Your task to perform on an android device: Search for "usb-b" on newegg.com, select the first entry, add it to the cart, then select checkout. Image 0: 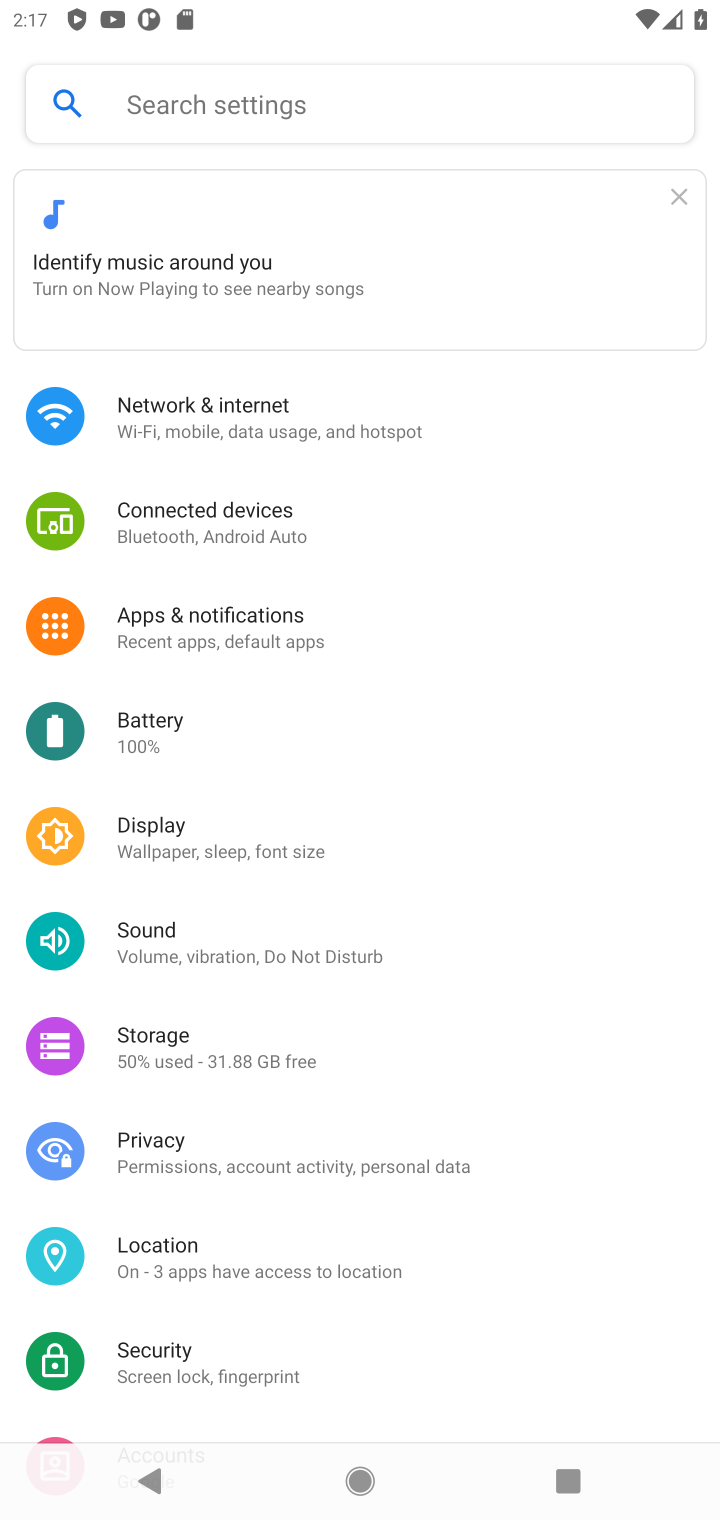
Step 0: press home button
Your task to perform on an android device: Search for "usb-b" on newegg.com, select the first entry, add it to the cart, then select checkout. Image 1: 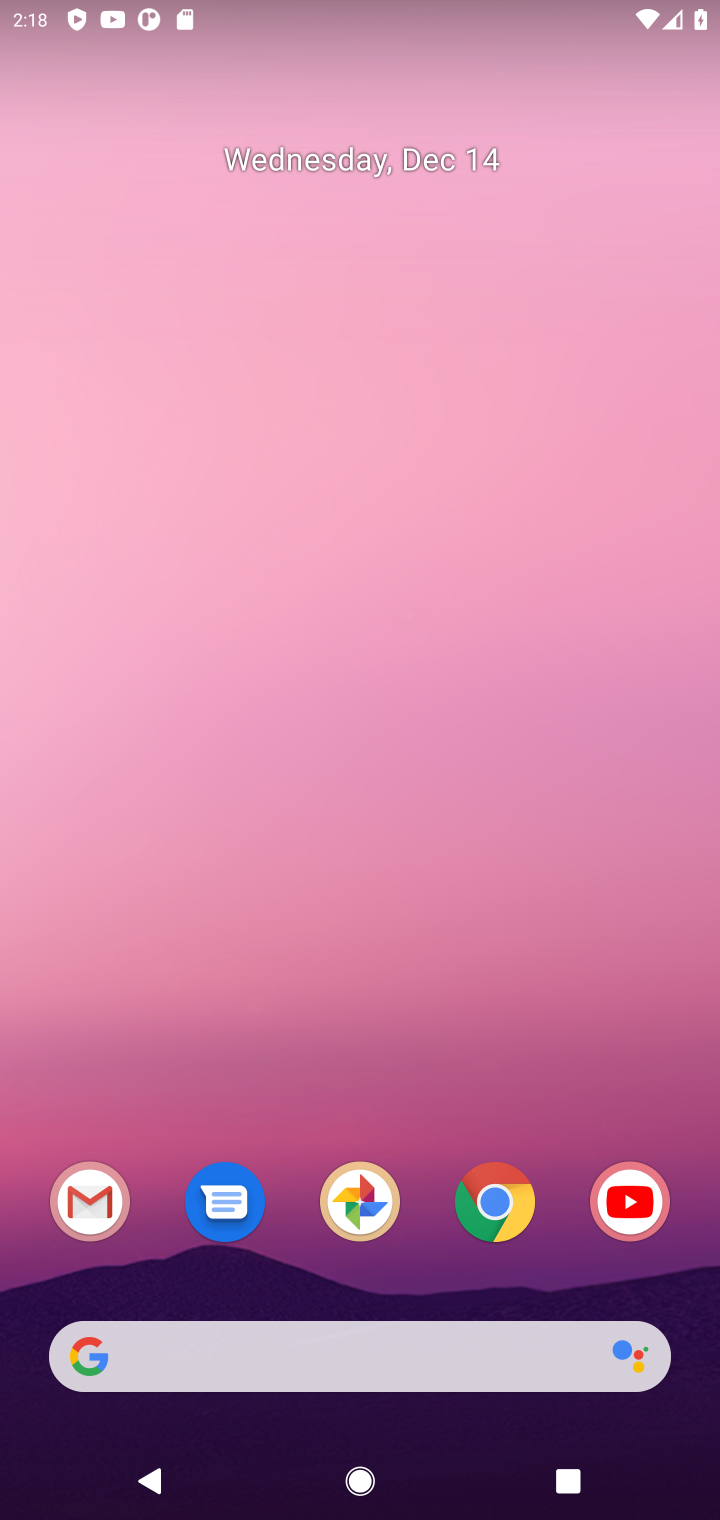
Step 1: click (491, 1203)
Your task to perform on an android device: Search for "usb-b" on newegg.com, select the first entry, add it to the cart, then select checkout. Image 2: 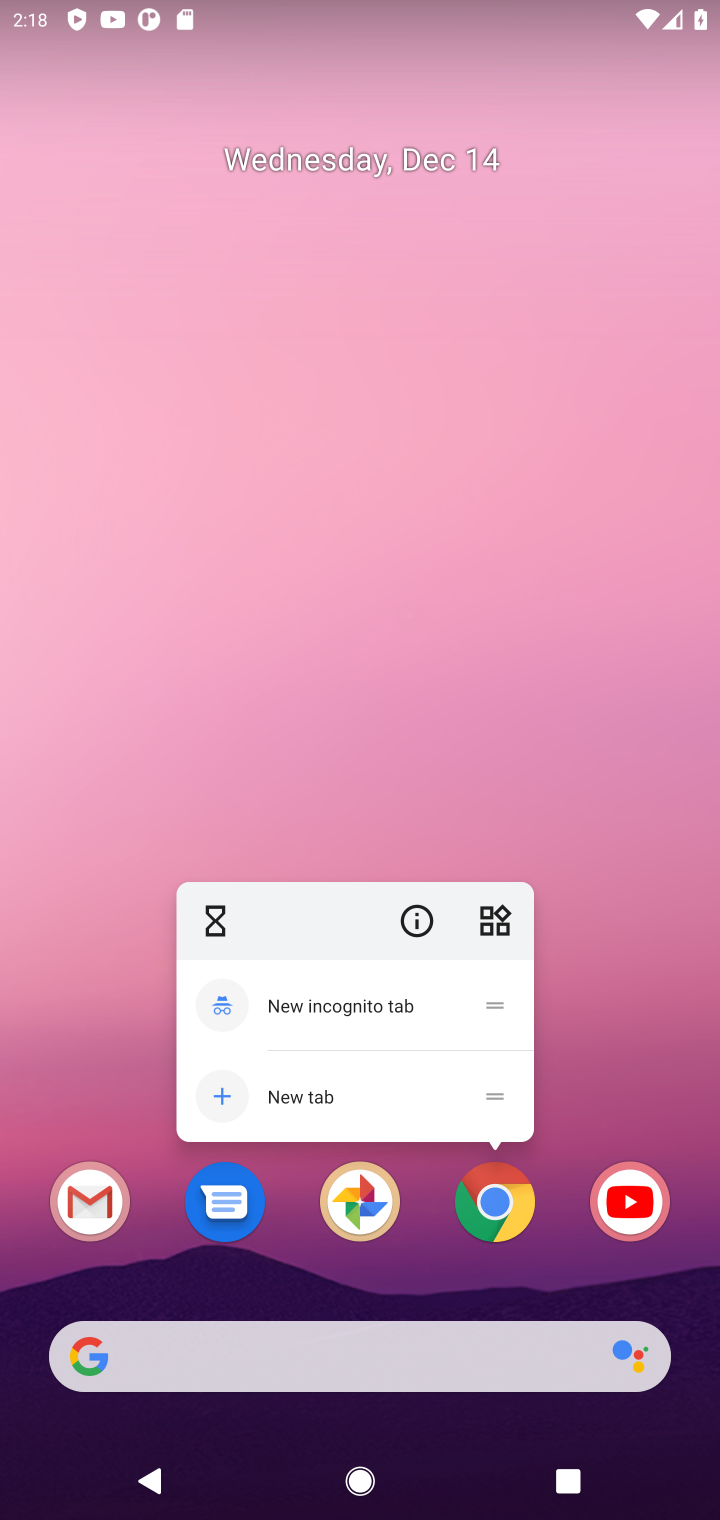
Step 2: click (505, 1188)
Your task to perform on an android device: Search for "usb-b" on newegg.com, select the first entry, add it to the cart, then select checkout. Image 3: 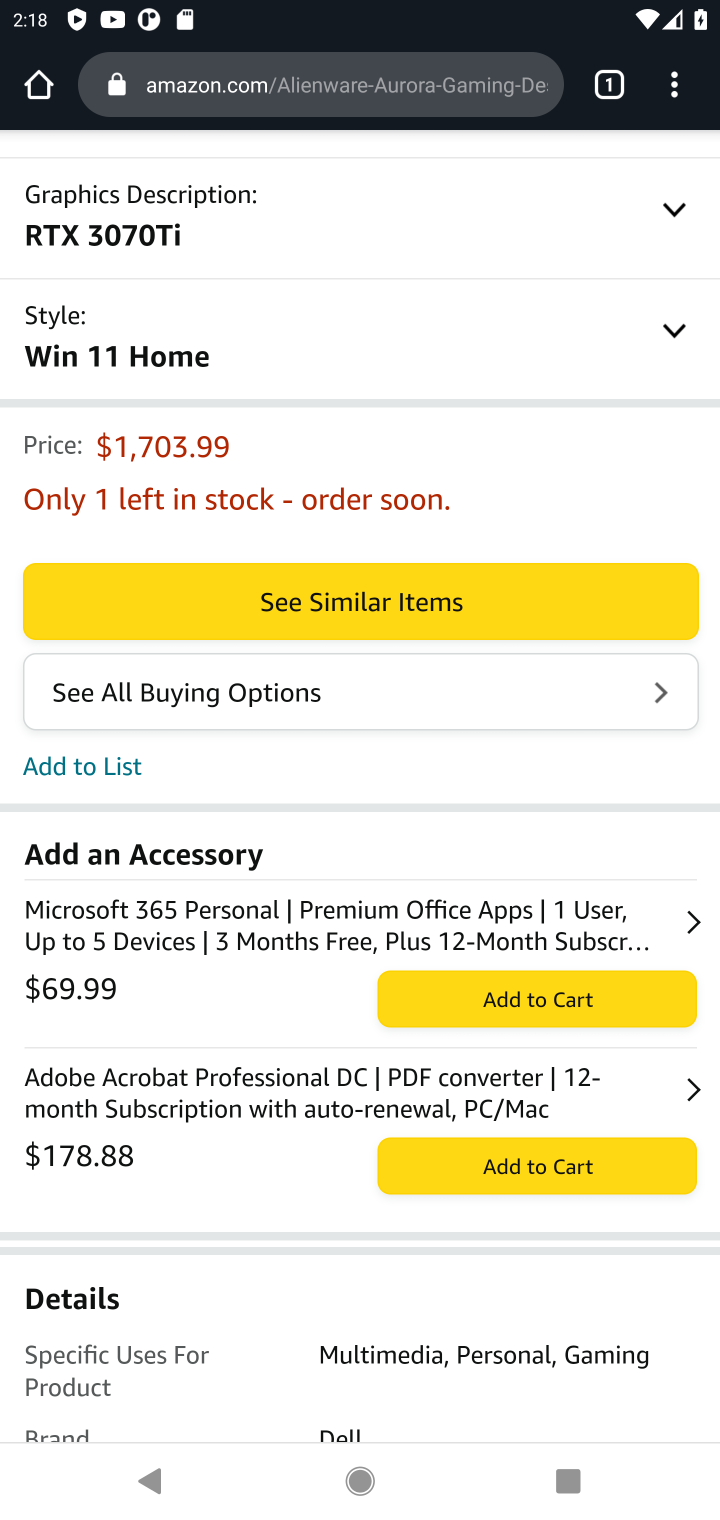
Step 3: click (291, 79)
Your task to perform on an android device: Search for "usb-b" on newegg.com, select the first entry, add it to the cart, then select checkout. Image 4: 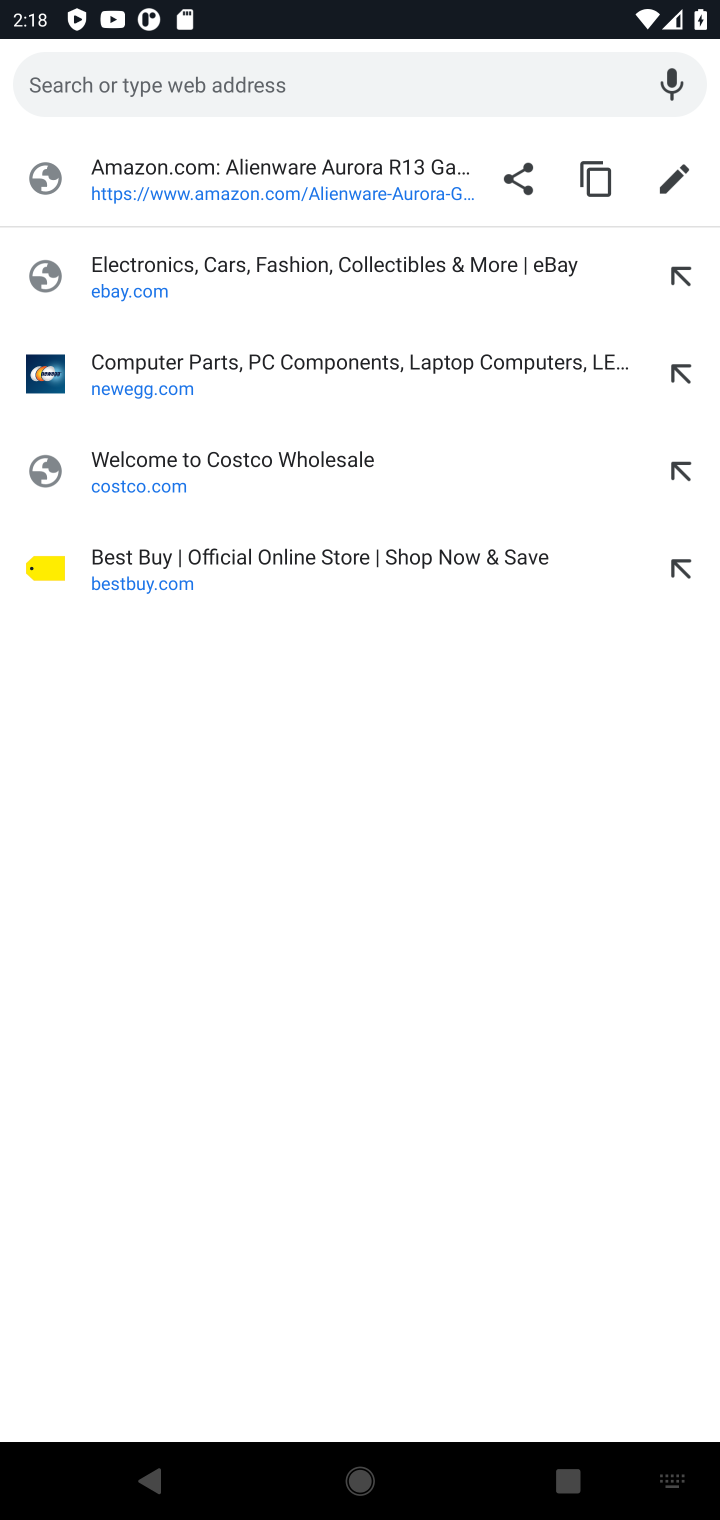
Step 4: click (142, 390)
Your task to perform on an android device: Search for "usb-b" on newegg.com, select the first entry, add it to the cart, then select checkout. Image 5: 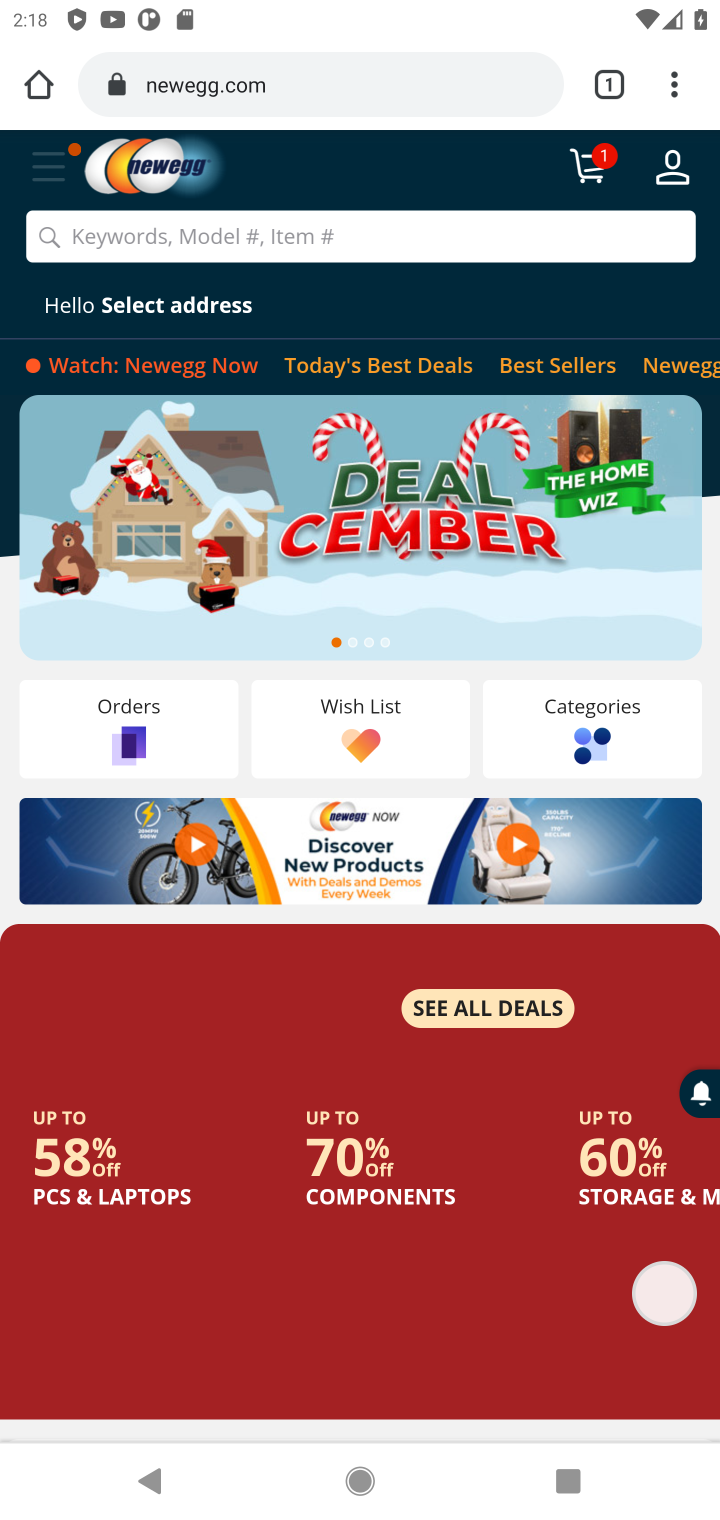
Step 5: click (398, 234)
Your task to perform on an android device: Search for "usb-b" on newegg.com, select the first entry, add it to the cart, then select checkout. Image 6: 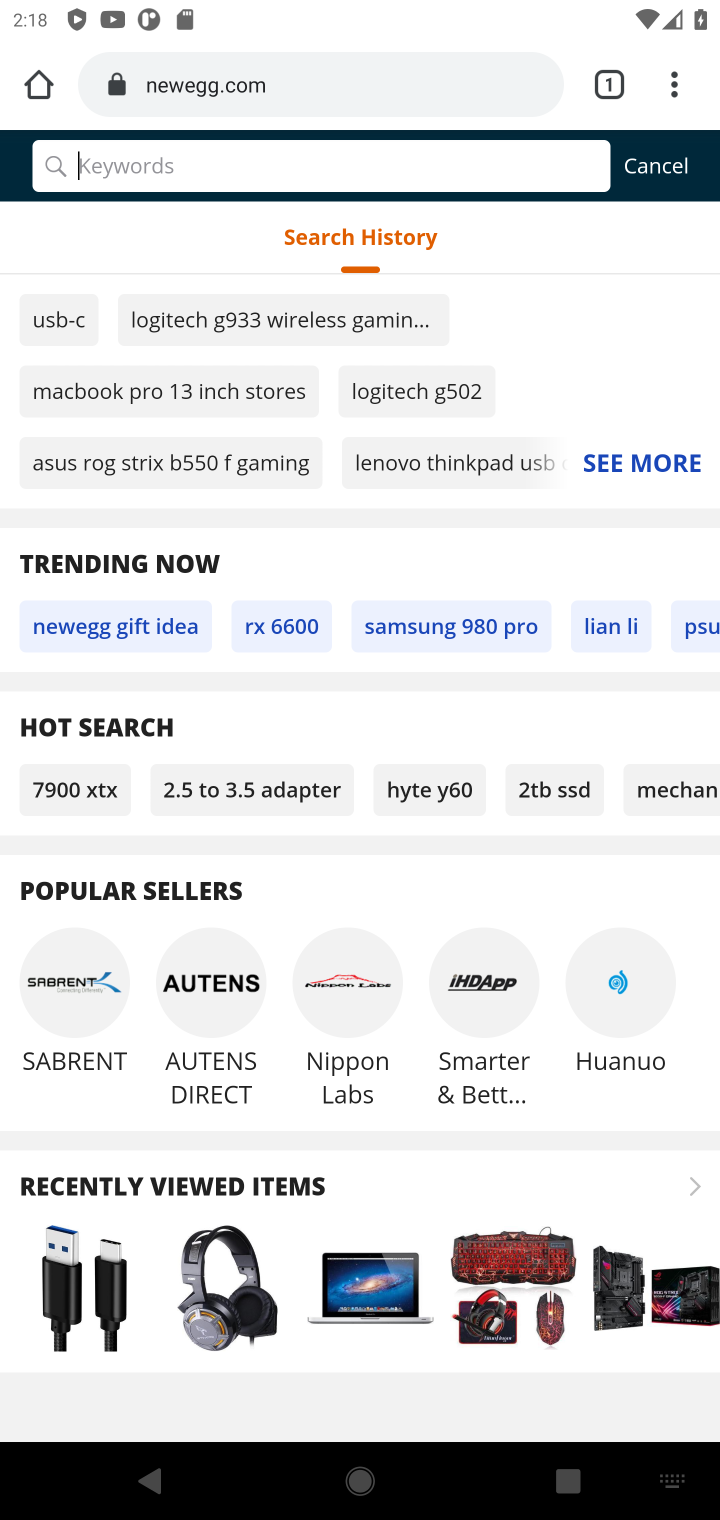
Step 6: type "usb-b"
Your task to perform on an android device: Search for "usb-b" on newegg.com, select the first entry, add it to the cart, then select checkout. Image 7: 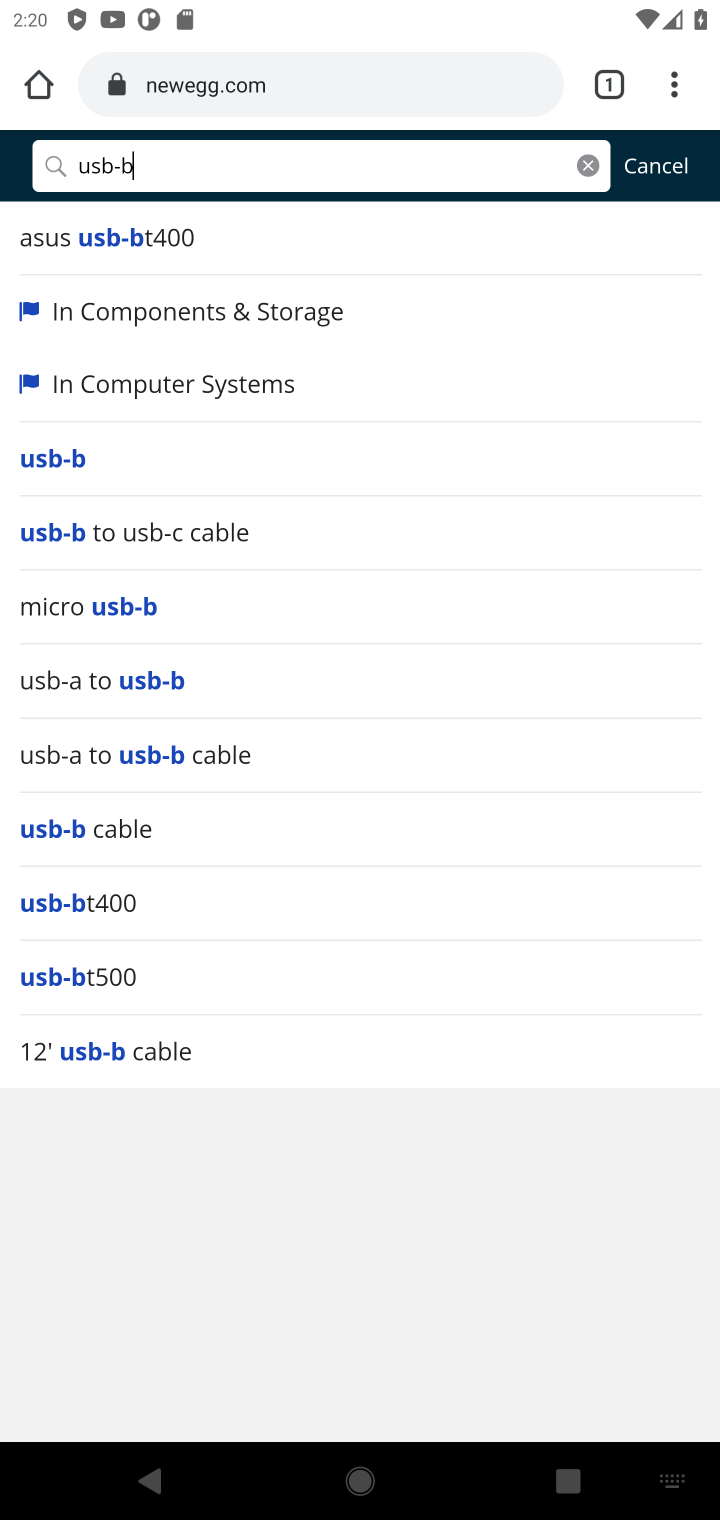
Step 7: click (102, 246)
Your task to perform on an android device: Search for "usb-b" on newegg.com, select the first entry, add it to the cart, then select checkout. Image 8: 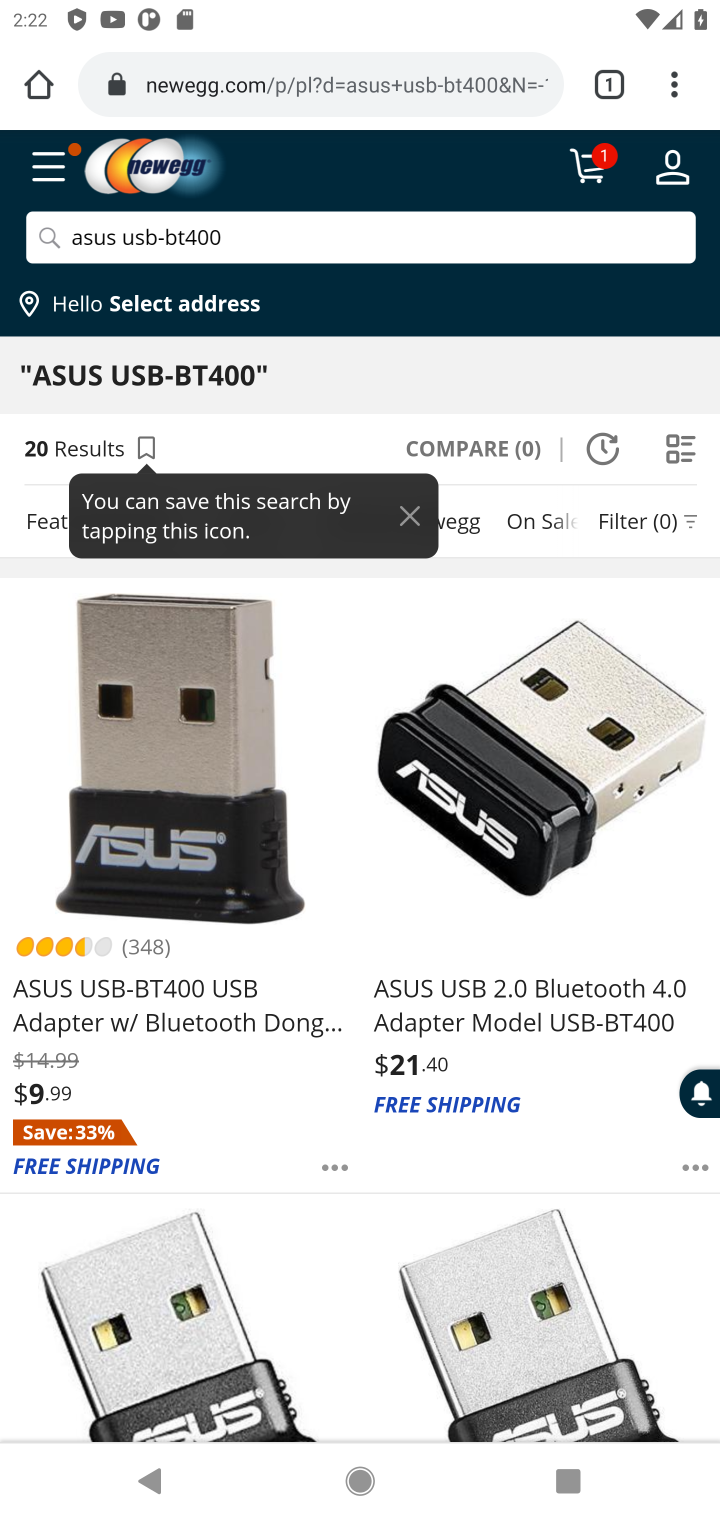
Step 8: task complete